Your task to perform on an android device: turn on improve location accuracy Image 0: 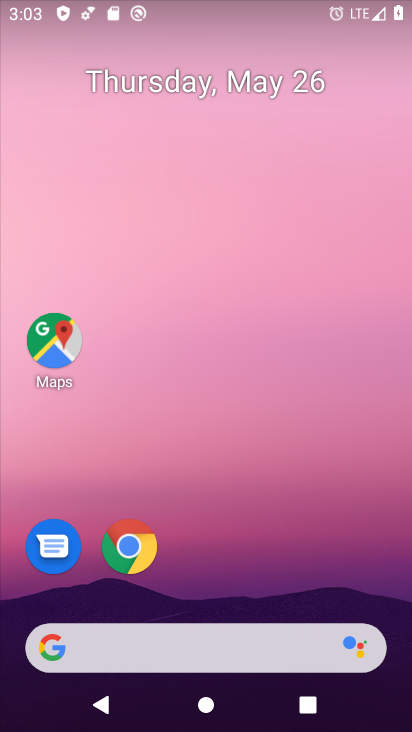
Step 0: drag from (192, 614) to (268, 60)
Your task to perform on an android device: turn on improve location accuracy Image 1: 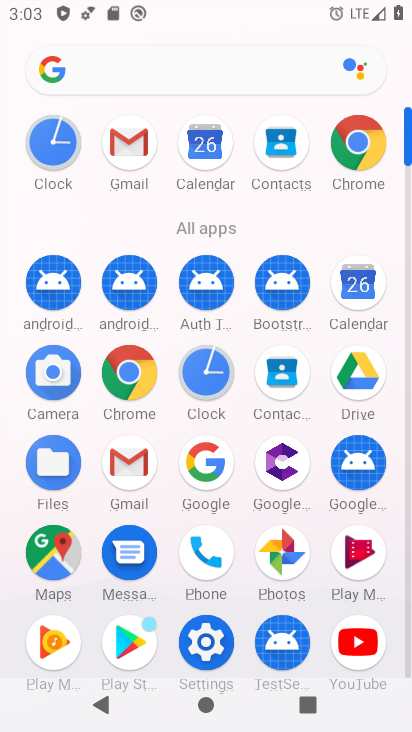
Step 1: click (211, 649)
Your task to perform on an android device: turn on improve location accuracy Image 2: 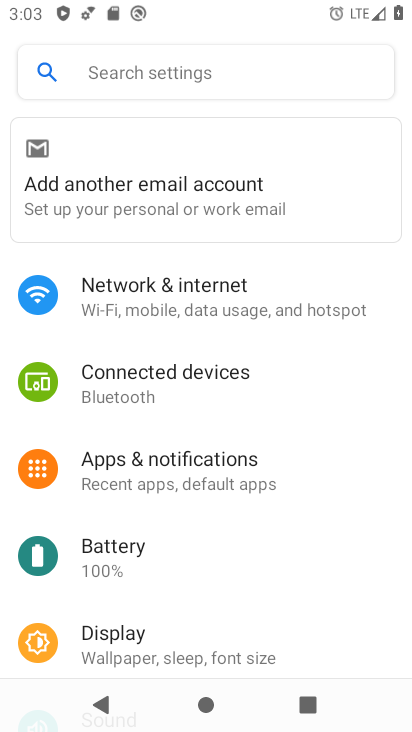
Step 2: drag from (204, 599) to (268, 125)
Your task to perform on an android device: turn on improve location accuracy Image 3: 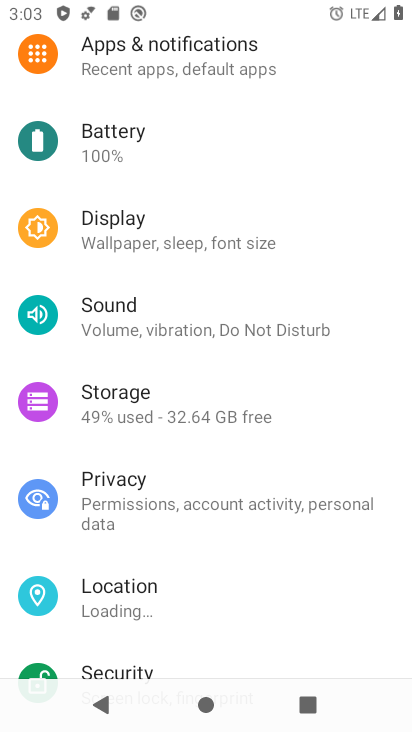
Step 3: click (65, 606)
Your task to perform on an android device: turn on improve location accuracy Image 4: 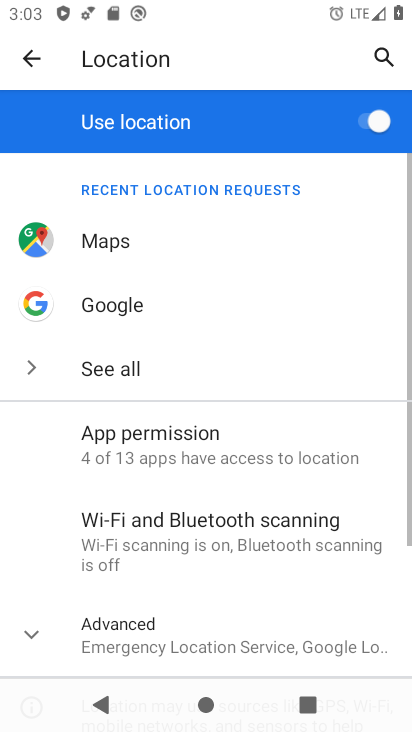
Step 4: click (125, 624)
Your task to perform on an android device: turn on improve location accuracy Image 5: 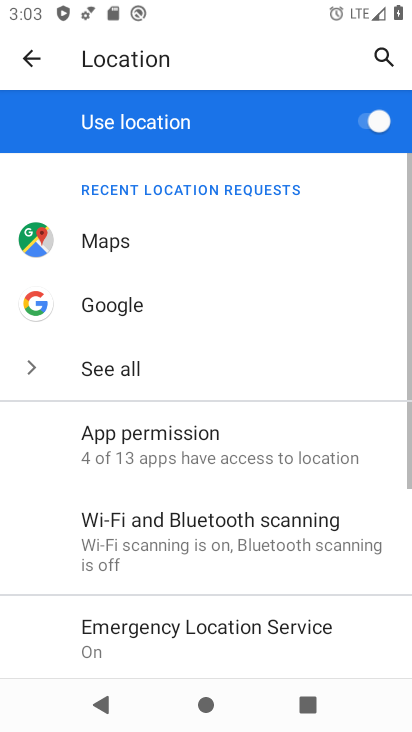
Step 5: drag from (180, 619) to (274, 154)
Your task to perform on an android device: turn on improve location accuracy Image 6: 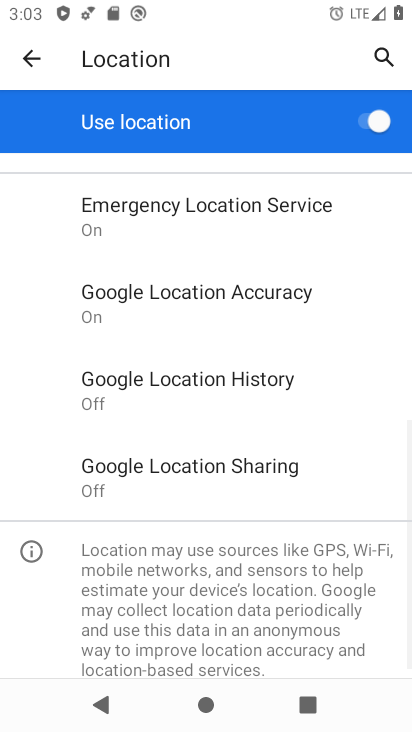
Step 6: click (211, 310)
Your task to perform on an android device: turn on improve location accuracy Image 7: 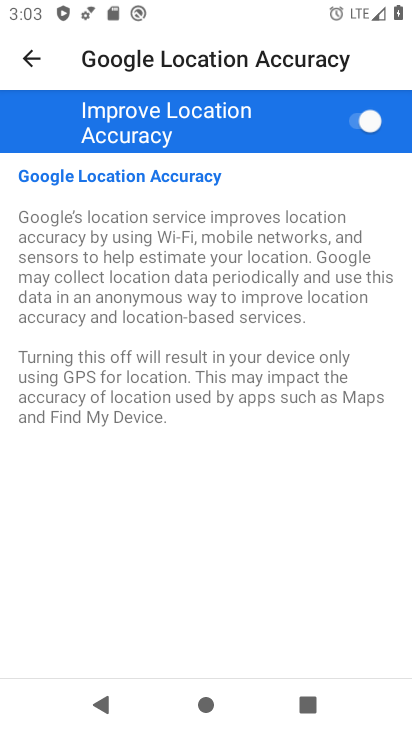
Step 7: task complete